Your task to perform on an android device: turn off smart reply in the gmail app Image 0: 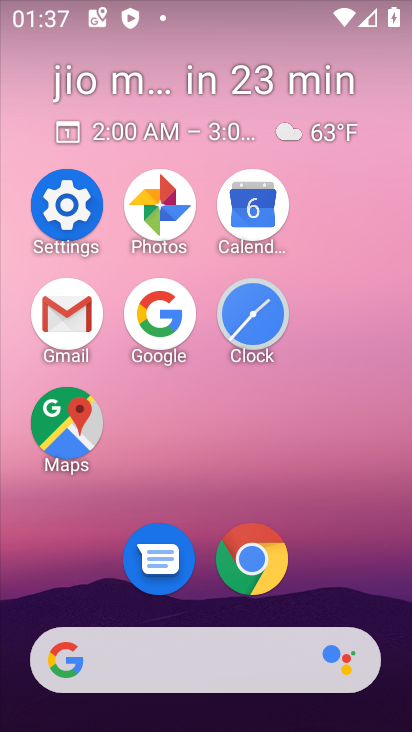
Step 0: click (67, 332)
Your task to perform on an android device: turn off smart reply in the gmail app Image 1: 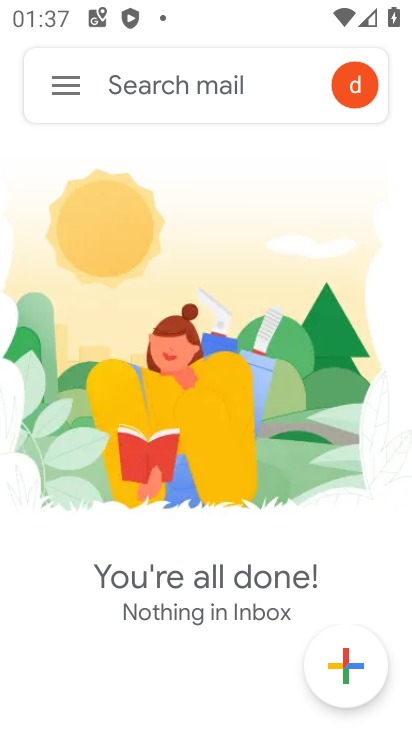
Step 1: click (69, 103)
Your task to perform on an android device: turn off smart reply in the gmail app Image 2: 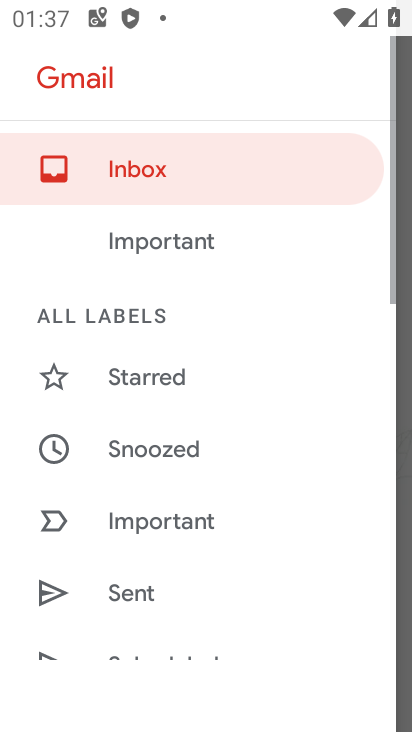
Step 2: drag from (173, 534) to (214, 125)
Your task to perform on an android device: turn off smart reply in the gmail app Image 3: 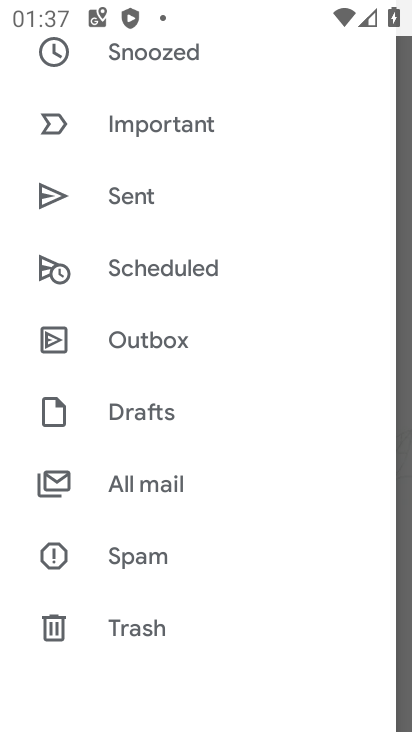
Step 3: drag from (219, 541) to (282, 52)
Your task to perform on an android device: turn off smart reply in the gmail app Image 4: 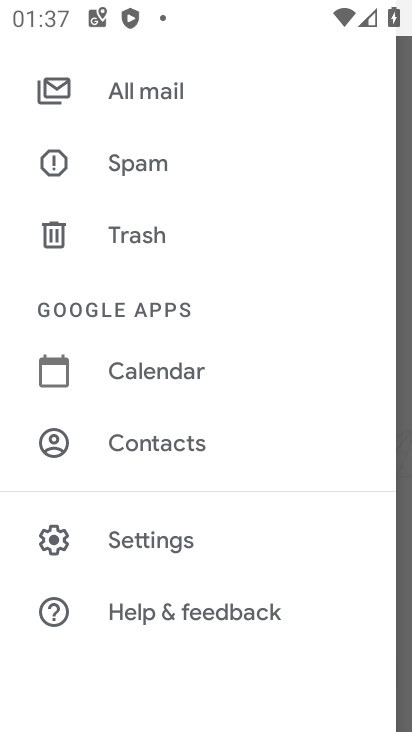
Step 4: click (271, 542)
Your task to perform on an android device: turn off smart reply in the gmail app Image 5: 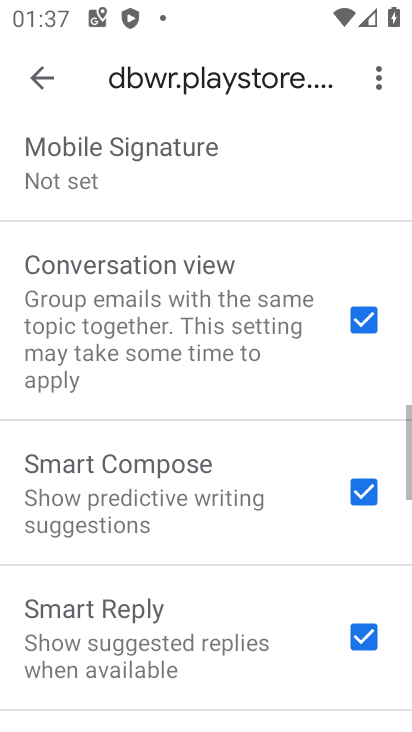
Step 5: drag from (266, 534) to (289, 174)
Your task to perform on an android device: turn off smart reply in the gmail app Image 6: 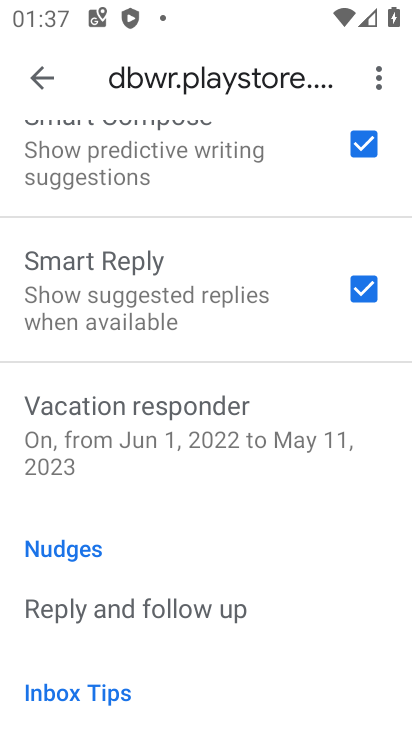
Step 6: drag from (290, 219) to (257, 477)
Your task to perform on an android device: turn off smart reply in the gmail app Image 7: 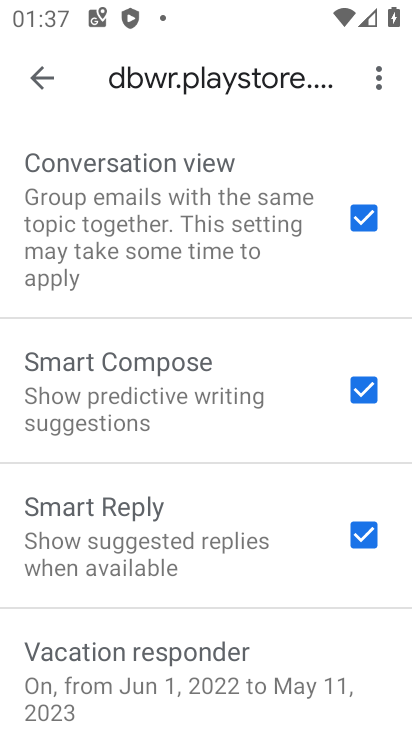
Step 7: click (364, 539)
Your task to perform on an android device: turn off smart reply in the gmail app Image 8: 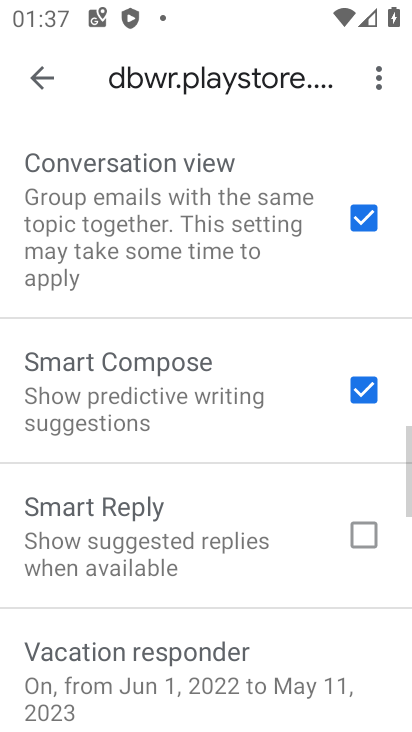
Step 8: task complete